Your task to perform on an android device: toggle wifi Image 0: 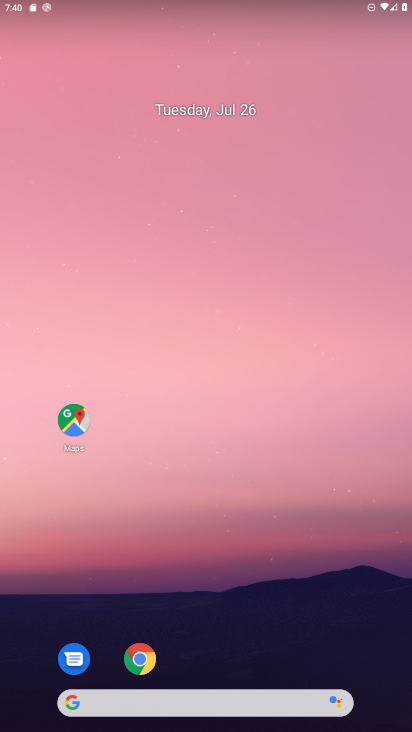
Step 0: drag from (208, 644) to (310, 150)
Your task to perform on an android device: toggle wifi Image 1: 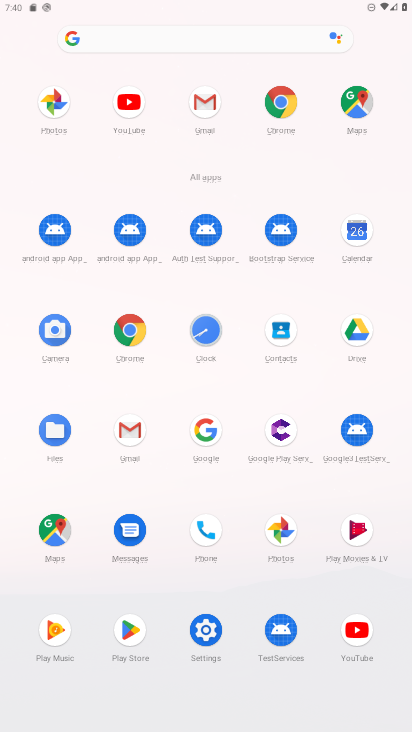
Step 1: click (196, 629)
Your task to perform on an android device: toggle wifi Image 2: 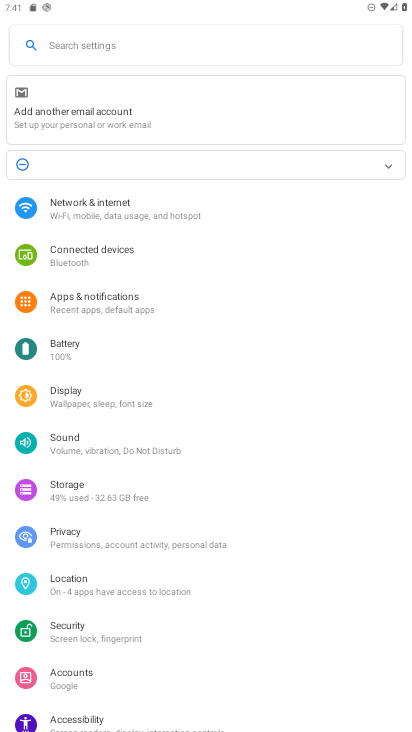
Step 2: drag from (162, 565) to (366, 187)
Your task to perform on an android device: toggle wifi Image 3: 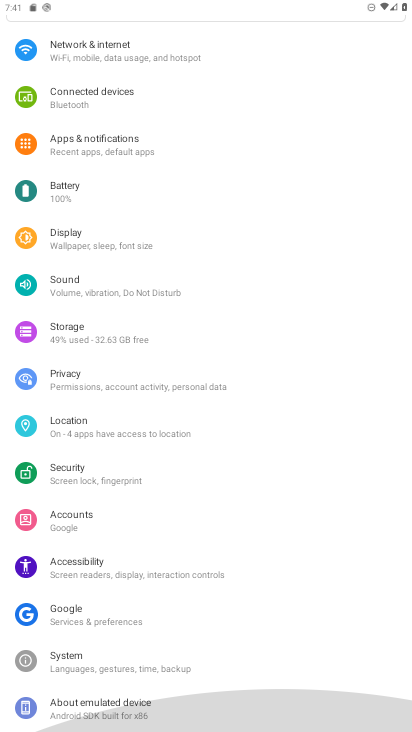
Step 3: drag from (307, 218) to (220, 708)
Your task to perform on an android device: toggle wifi Image 4: 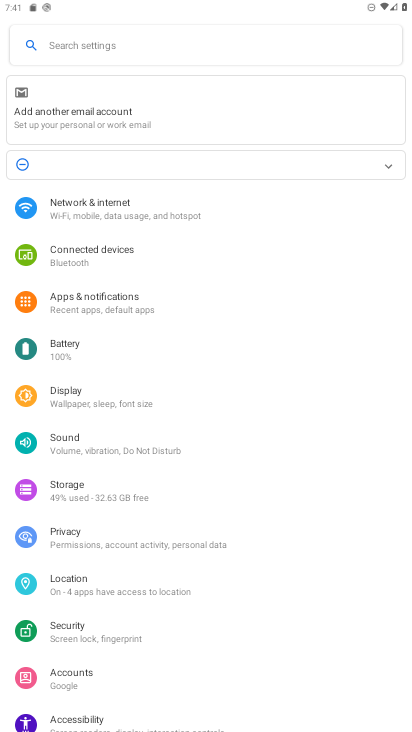
Step 4: click (133, 214)
Your task to perform on an android device: toggle wifi Image 5: 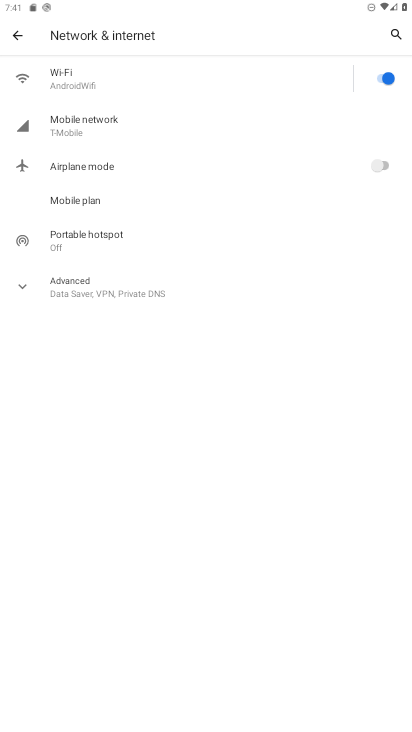
Step 5: click (113, 89)
Your task to perform on an android device: toggle wifi Image 6: 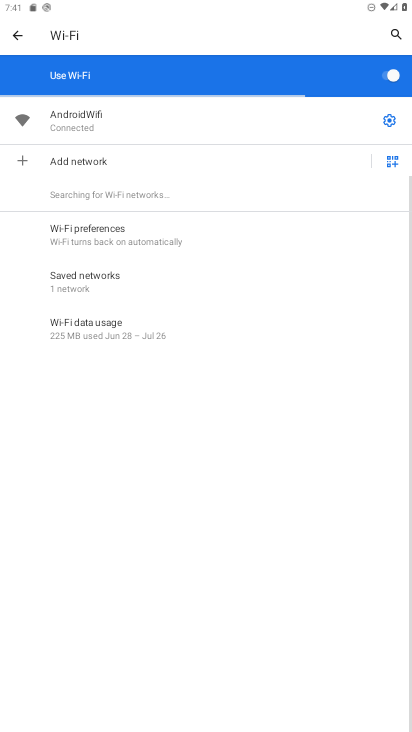
Step 6: drag from (223, 434) to (281, 187)
Your task to perform on an android device: toggle wifi Image 7: 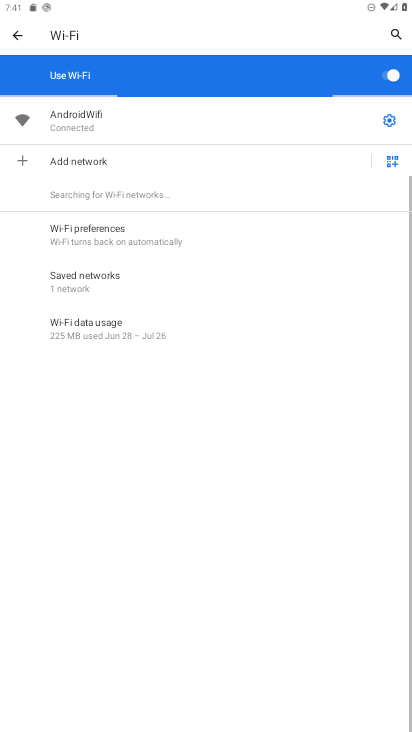
Step 7: click (379, 88)
Your task to perform on an android device: toggle wifi Image 8: 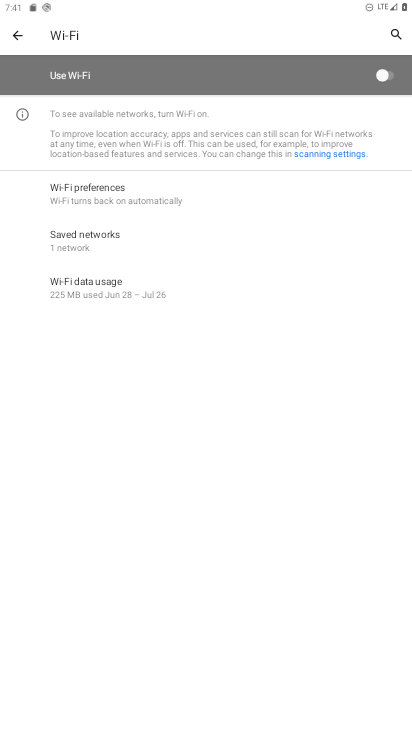
Step 8: task complete